Your task to perform on an android device: turn off sleep mode Image 0: 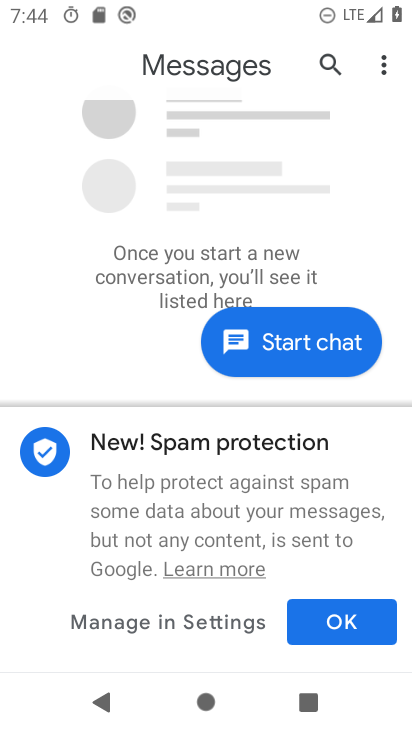
Step 0: press home button
Your task to perform on an android device: turn off sleep mode Image 1: 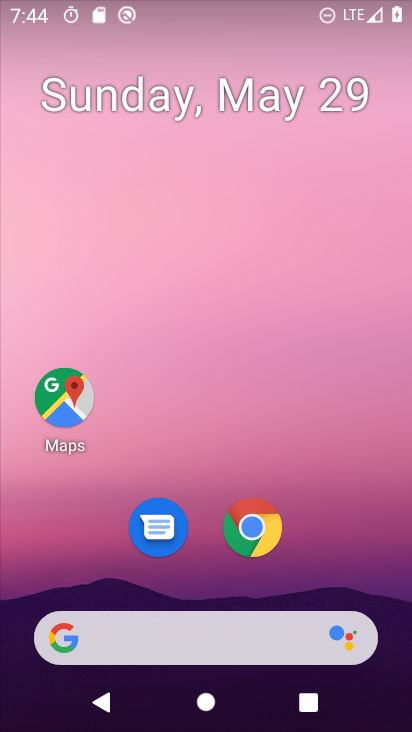
Step 1: drag from (394, 664) to (299, 5)
Your task to perform on an android device: turn off sleep mode Image 2: 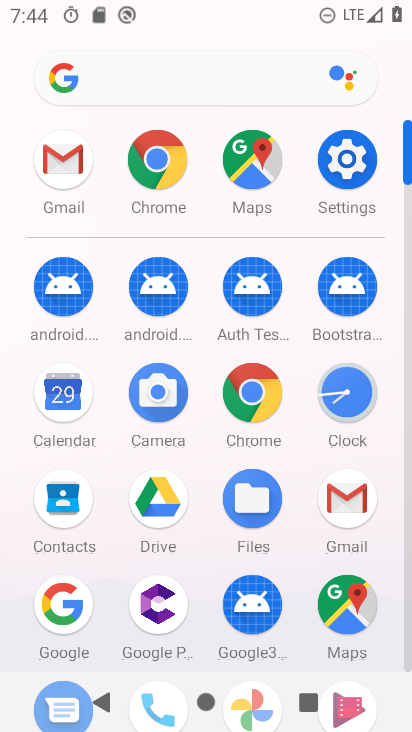
Step 2: click (344, 130)
Your task to perform on an android device: turn off sleep mode Image 3: 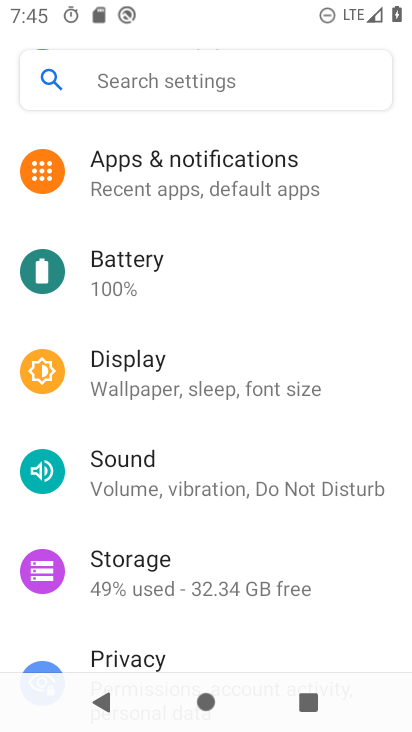
Step 3: task complete